Your task to perform on an android device: Open battery settings Image 0: 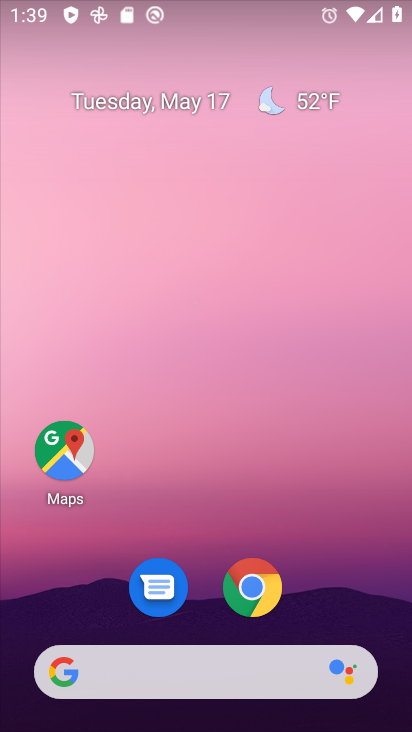
Step 0: drag from (334, 598) to (278, 303)
Your task to perform on an android device: Open battery settings Image 1: 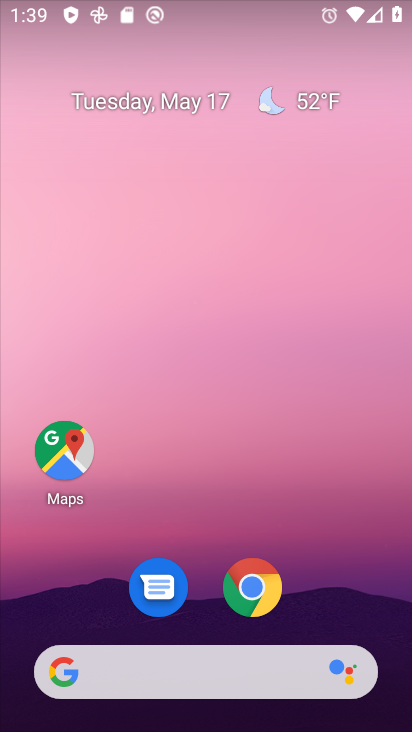
Step 1: drag from (370, 572) to (298, 210)
Your task to perform on an android device: Open battery settings Image 2: 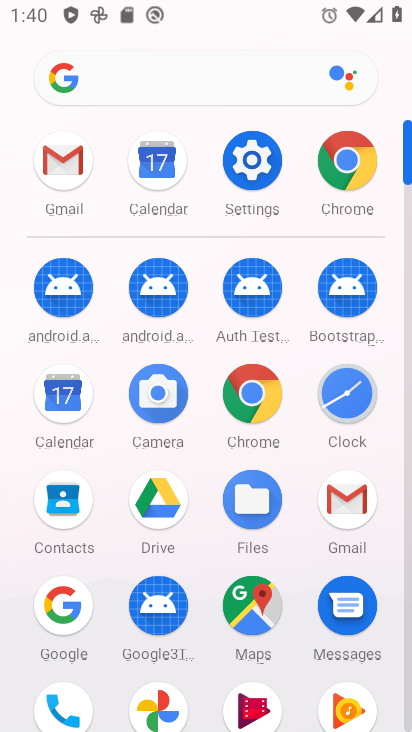
Step 2: click (255, 192)
Your task to perform on an android device: Open battery settings Image 3: 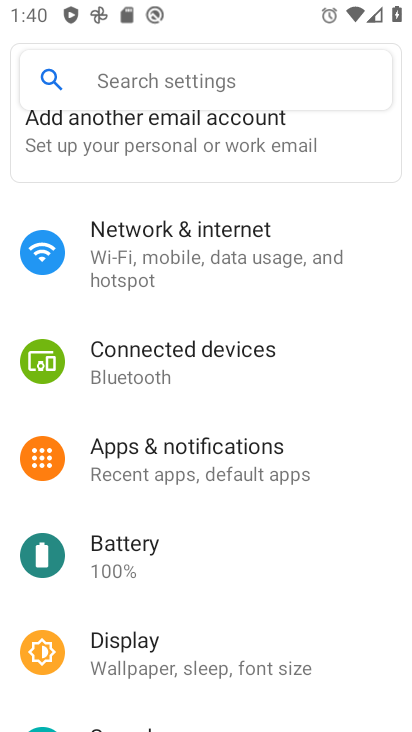
Step 3: click (200, 583)
Your task to perform on an android device: Open battery settings Image 4: 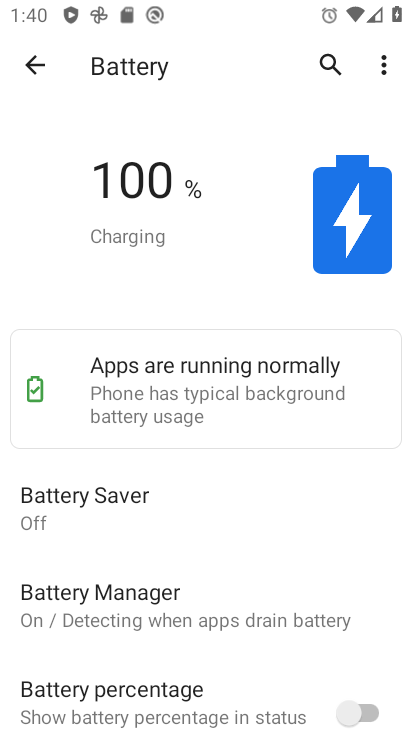
Step 4: task complete